Your task to perform on an android device: see creations saved in the google photos Image 0: 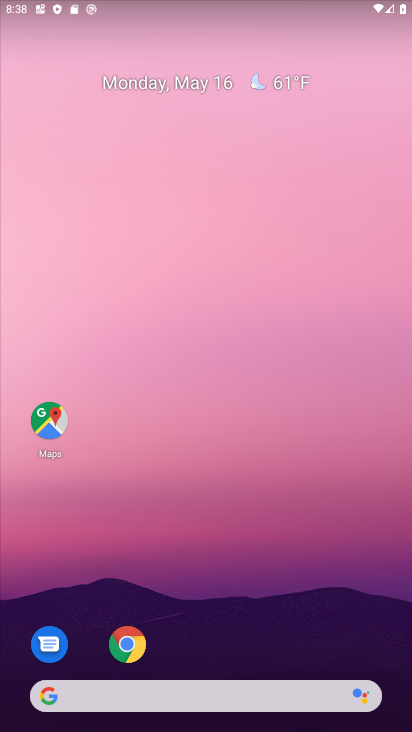
Step 0: drag from (241, 623) to (194, 127)
Your task to perform on an android device: see creations saved in the google photos Image 1: 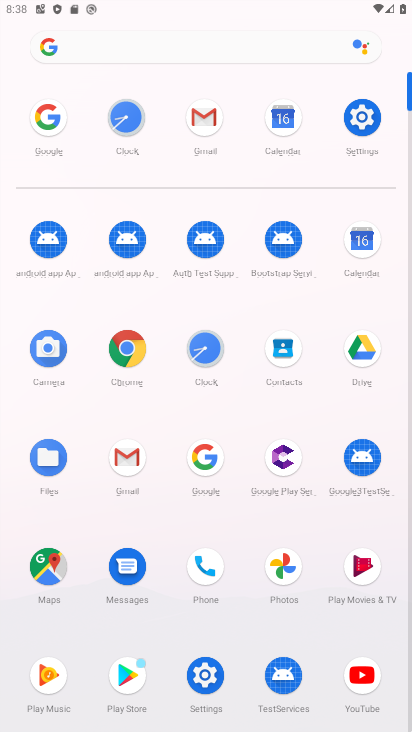
Step 1: click (285, 570)
Your task to perform on an android device: see creations saved in the google photos Image 2: 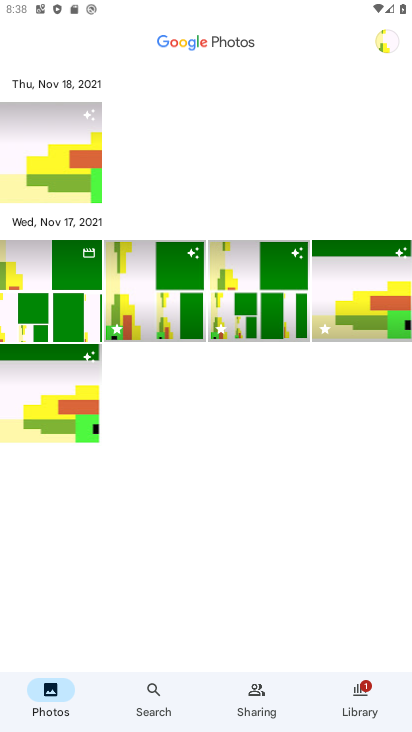
Step 2: click (157, 690)
Your task to perform on an android device: see creations saved in the google photos Image 3: 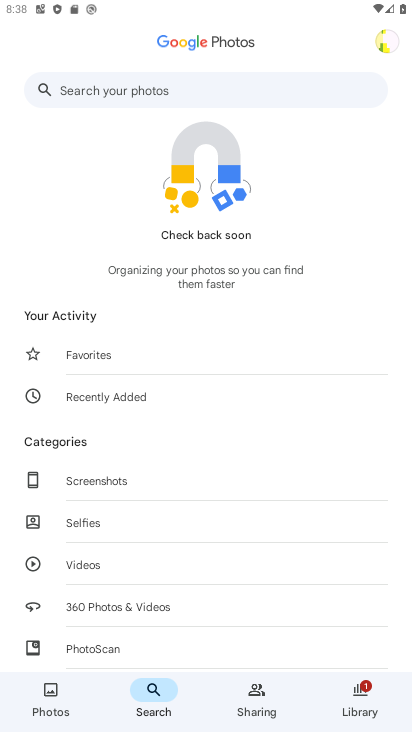
Step 3: drag from (227, 533) to (195, 175)
Your task to perform on an android device: see creations saved in the google photos Image 4: 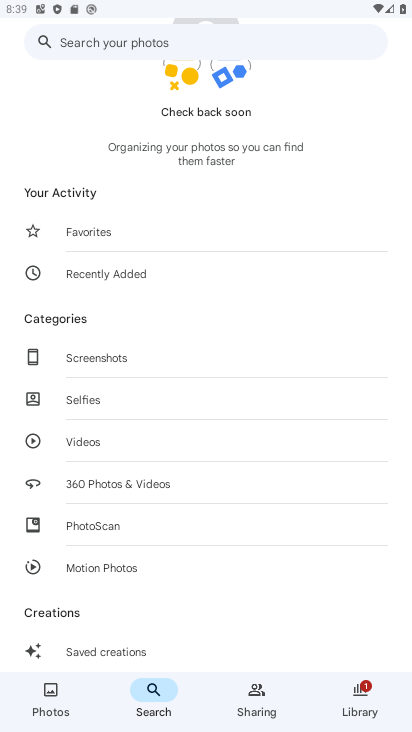
Step 4: click (100, 647)
Your task to perform on an android device: see creations saved in the google photos Image 5: 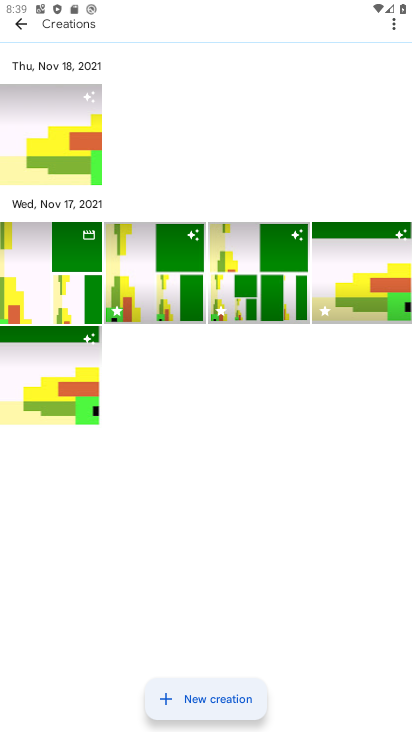
Step 5: task complete